Your task to perform on an android device: Go to network settings Image 0: 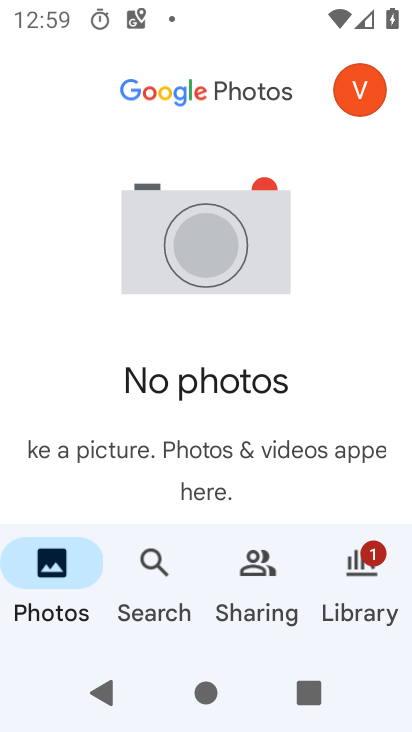
Step 0: press home button
Your task to perform on an android device: Go to network settings Image 1: 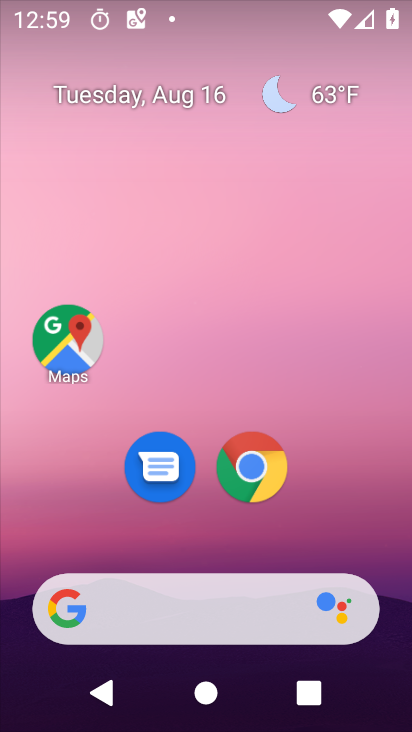
Step 1: drag from (372, 543) to (381, 114)
Your task to perform on an android device: Go to network settings Image 2: 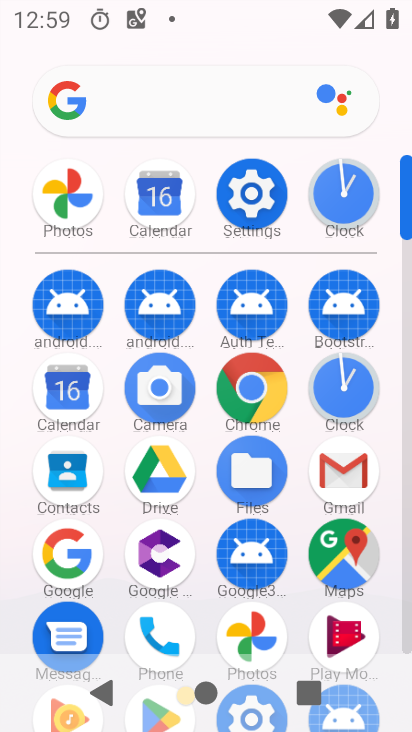
Step 2: click (252, 191)
Your task to perform on an android device: Go to network settings Image 3: 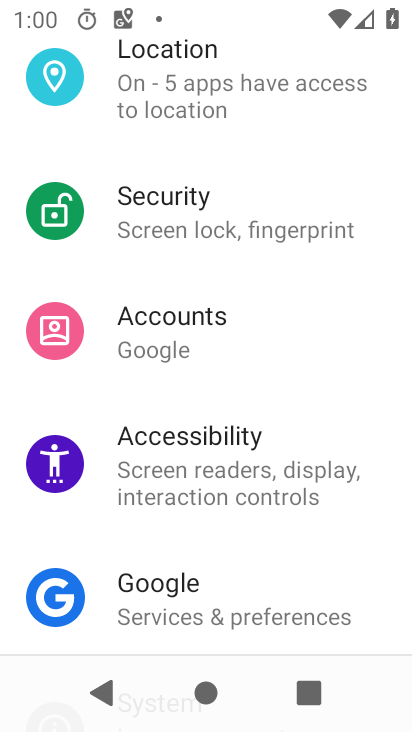
Step 3: drag from (346, 567) to (368, 441)
Your task to perform on an android device: Go to network settings Image 4: 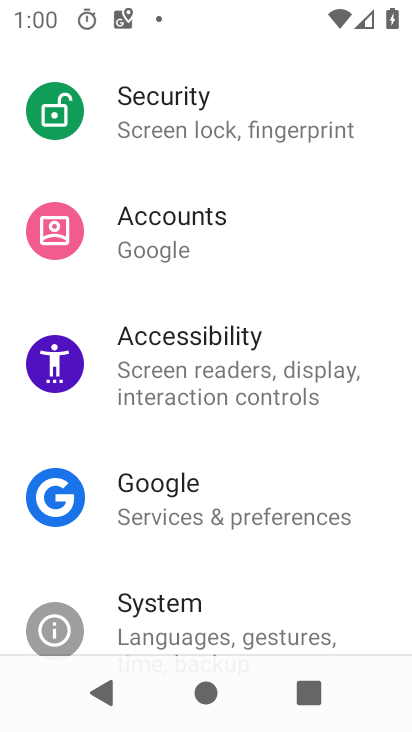
Step 4: drag from (340, 595) to (363, 463)
Your task to perform on an android device: Go to network settings Image 5: 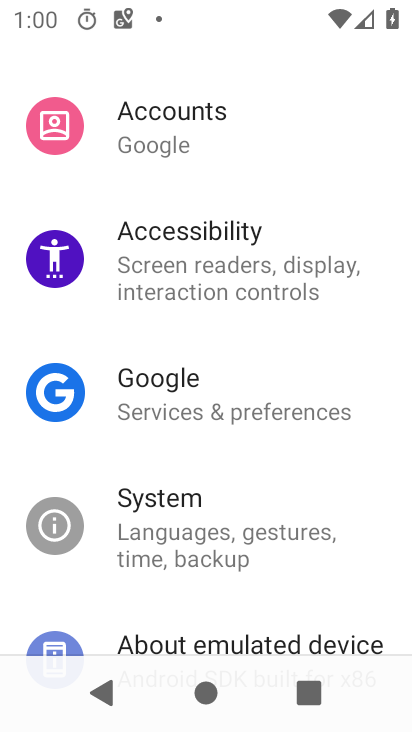
Step 5: drag from (336, 574) to (348, 404)
Your task to perform on an android device: Go to network settings Image 6: 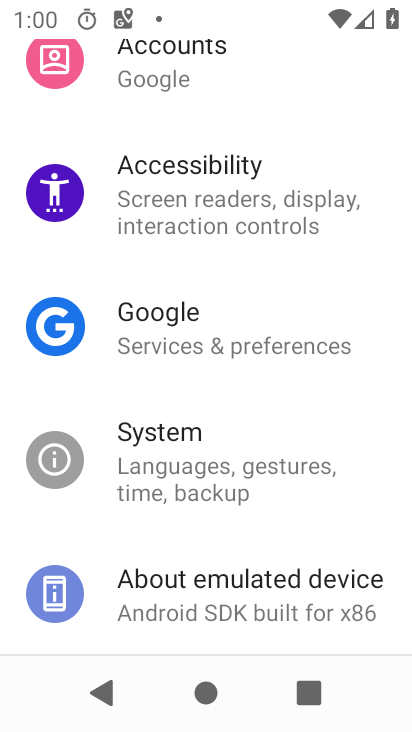
Step 6: drag from (347, 566) to (348, 346)
Your task to perform on an android device: Go to network settings Image 7: 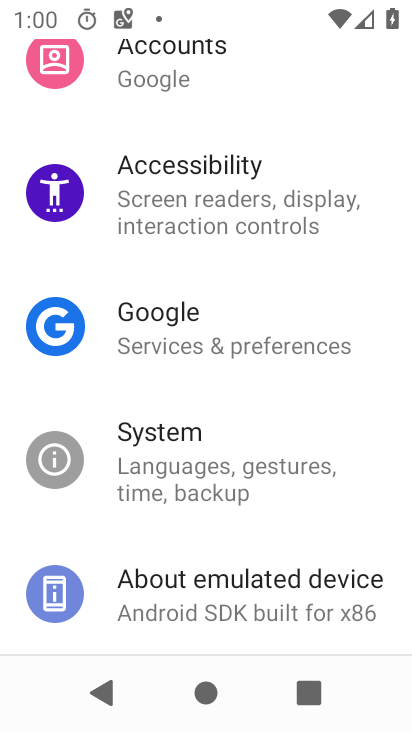
Step 7: drag from (367, 240) to (363, 351)
Your task to perform on an android device: Go to network settings Image 8: 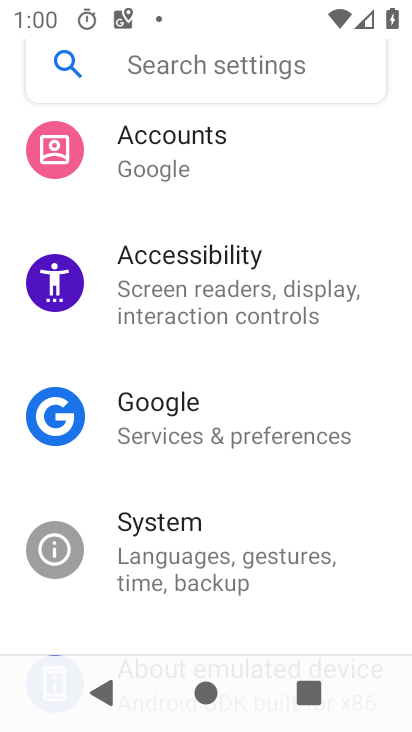
Step 8: drag from (360, 208) to (365, 371)
Your task to perform on an android device: Go to network settings Image 9: 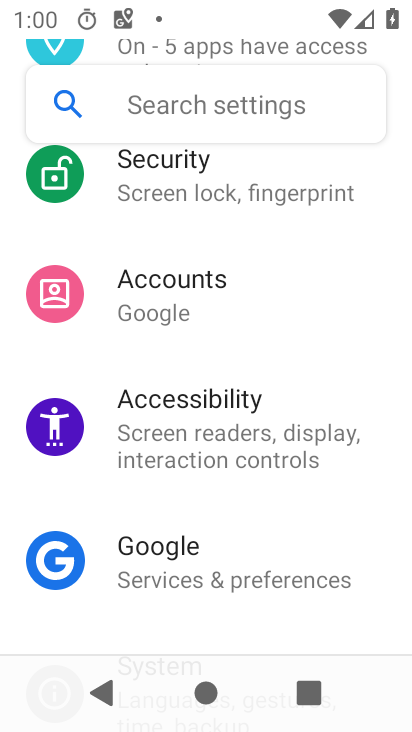
Step 9: drag from (380, 225) to (378, 344)
Your task to perform on an android device: Go to network settings Image 10: 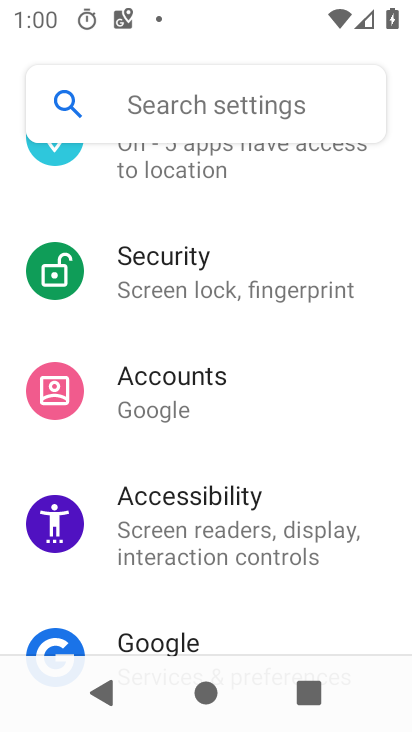
Step 10: drag from (379, 220) to (384, 409)
Your task to perform on an android device: Go to network settings Image 11: 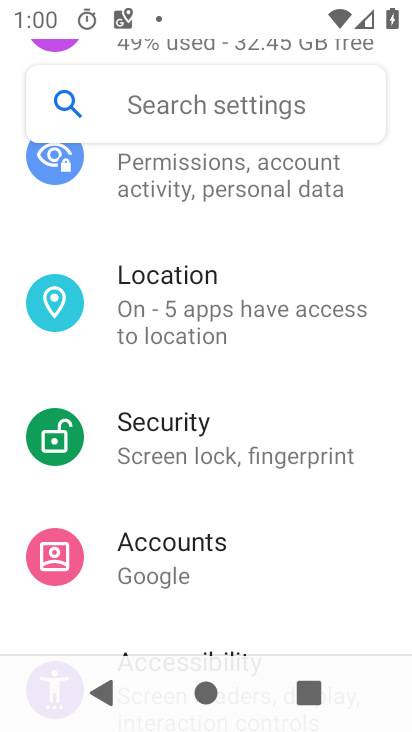
Step 11: drag from (387, 195) to (392, 357)
Your task to perform on an android device: Go to network settings Image 12: 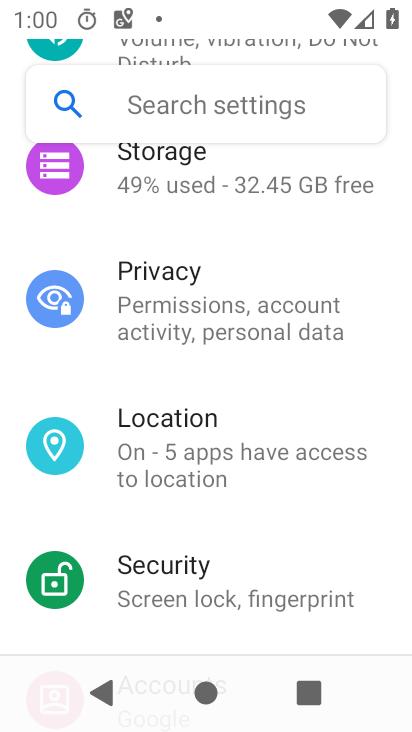
Step 12: drag from (394, 213) to (388, 354)
Your task to perform on an android device: Go to network settings Image 13: 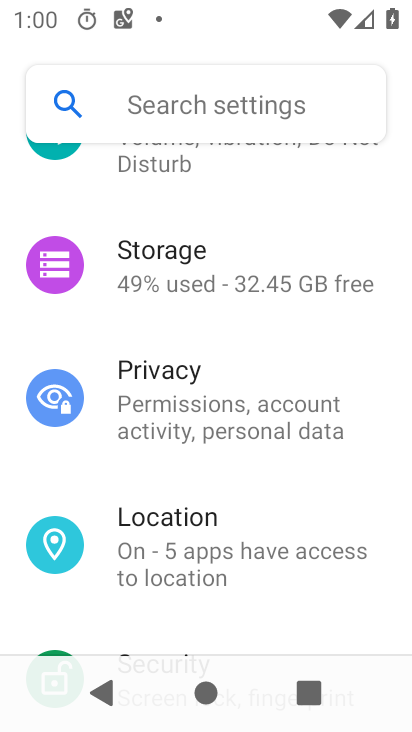
Step 13: drag from (383, 194) to (379, 337)
Your task to perform on an android device: Go to network settings Image 14: 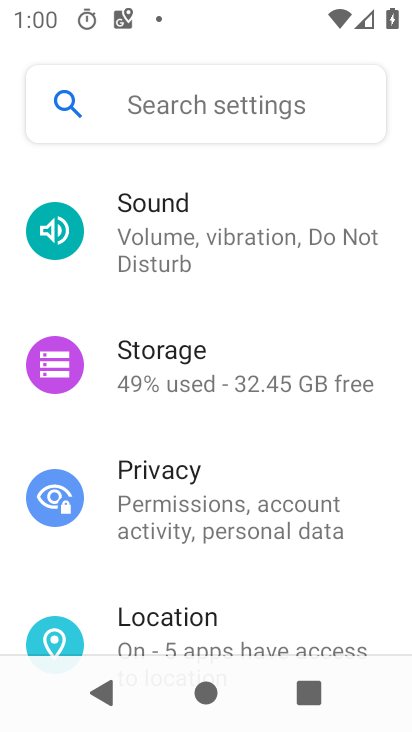
Step 14: drag from (369, 309) to (372, 393)
Your task to perform on an android device: Go to network settings Image 15: 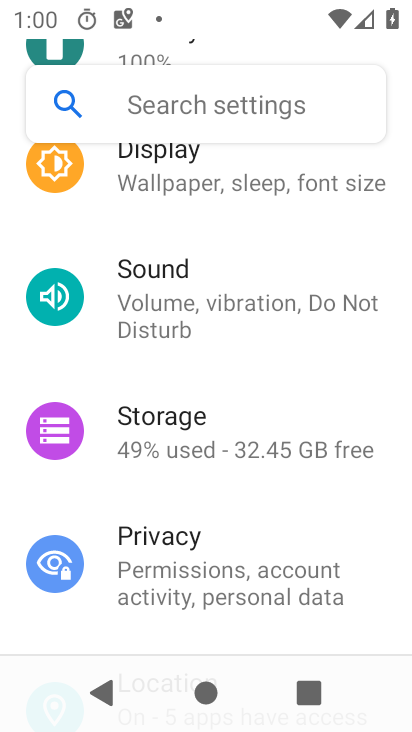
Step 15: drag from (374, 213) to (379, 406)
Your task to perform on an android device: Go to network settings Image 16: 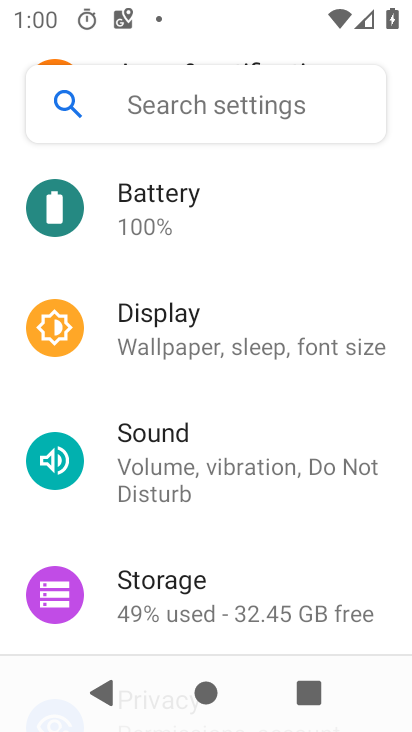
Step 16: drag from (378, 177) to (370, 366)
Your task to perform on an android device: Go to network settings Image 17: 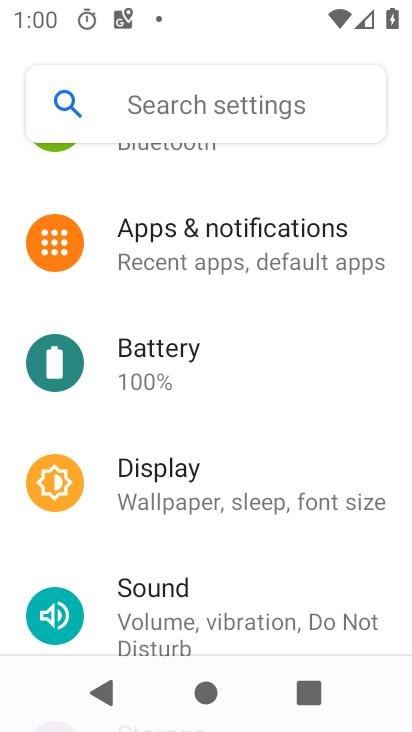
Step 17: drag from (368, 194) to (363, 383)
Your task to perform on an android device: Go to network settings Image 18: 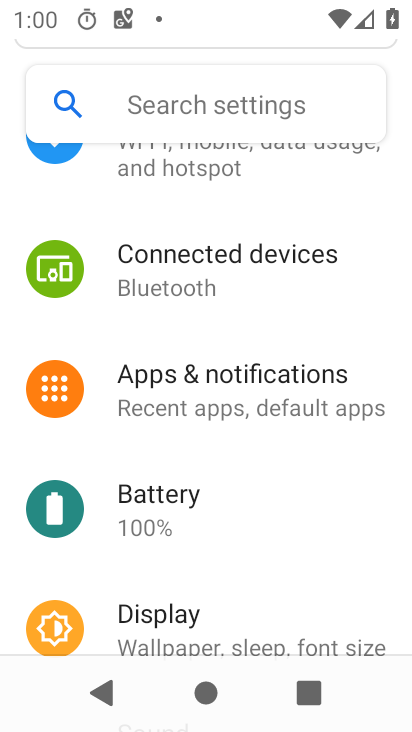
Step 18: drag from (364, 176) to (363, 361)
Your task to perform on an android device: Go to network settings Image 19: 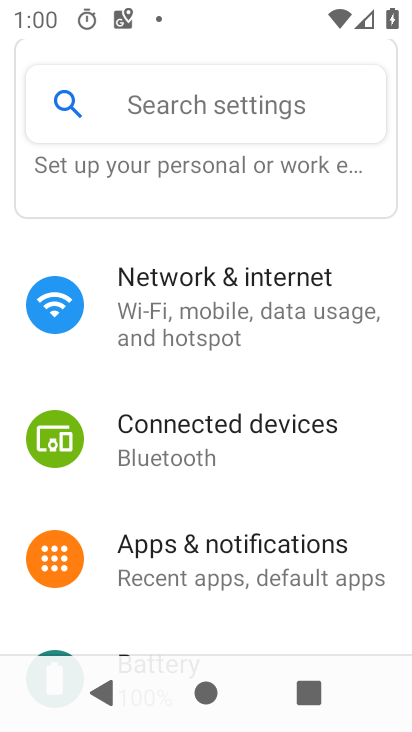
Step 19: click (260, 299)
Your task to perform on an android device: Go to network settings Image 20: 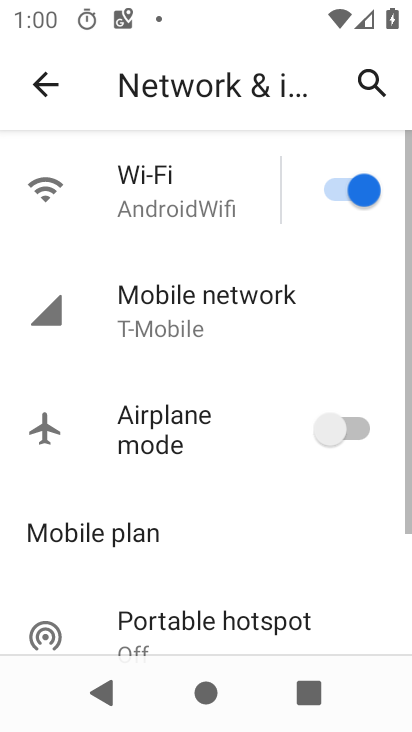
Step 20: task complete